Your task to perform on an android device: toggle show notifications on the lock screen Image 0: 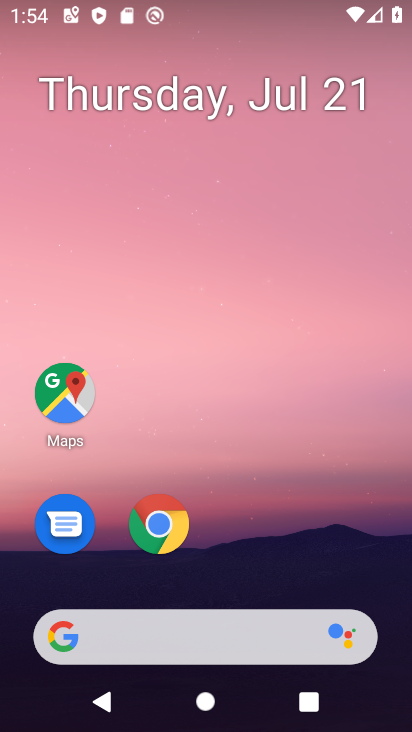
Step 0: drag from (277, 539) to (280, 27)
Your task to perform on an android device: toggle show notifications on the lock screen Image 1: 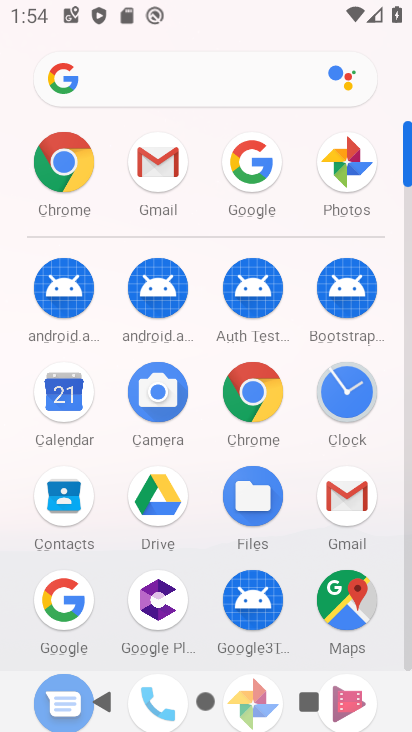
Step 1: drag from (201, 430) to (230, 99)
Your task to perform on an android device: toggle show notifications on the lock screen Image 2: 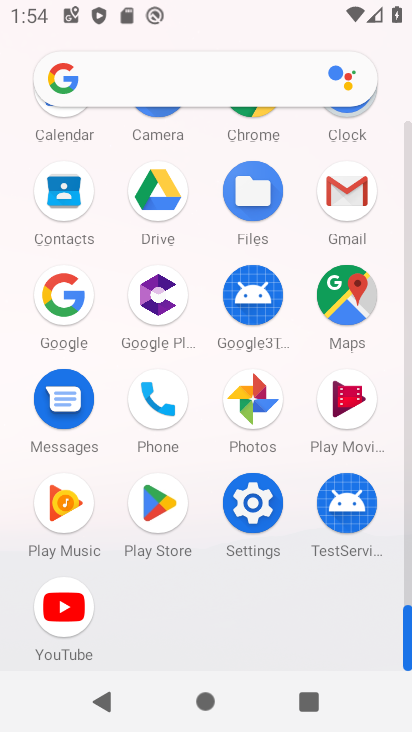
Step 2: click (251, 493)
Your task to perform on an android device: toggle show notifications on the lock screen Image 3: 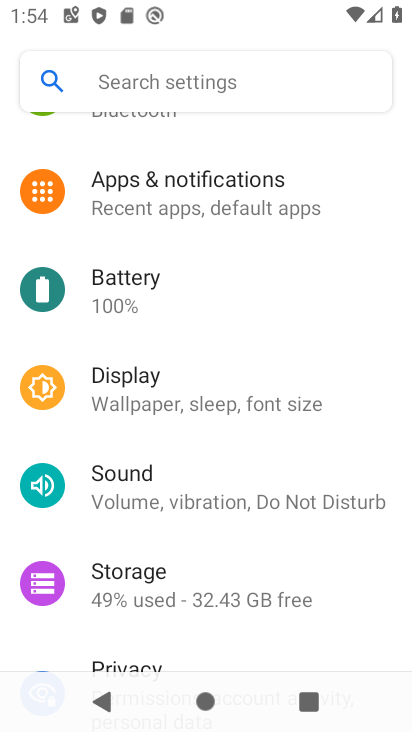
Step 3: click (249, 199)
Your task to perform on an android device: toggle show notifications on the lock screen Image 4: 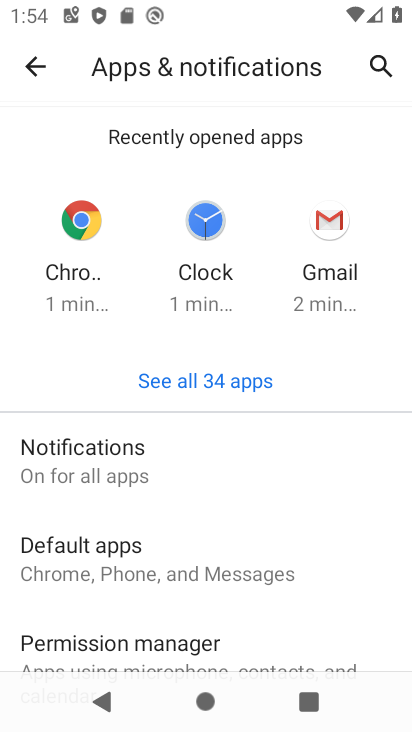
Step 4: click (101, 440)
Your task to perform on an android device: toggle show notifications on the lock screen Image 5: 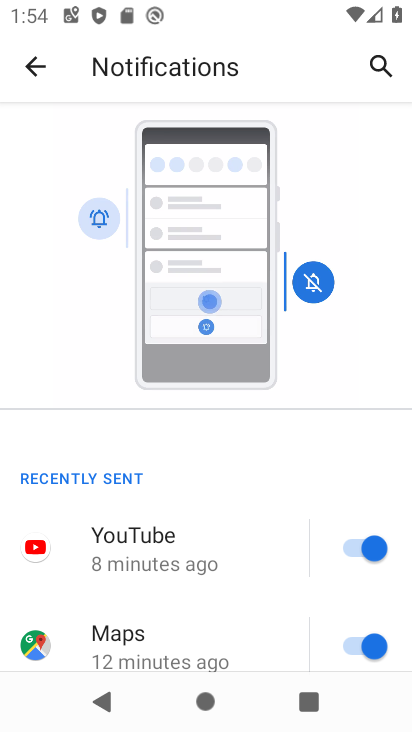
Step 5: drag from (205, 606) to (234, 46)
Your task to perform on an android device: toggle show notifications on the lock screen Image 6: 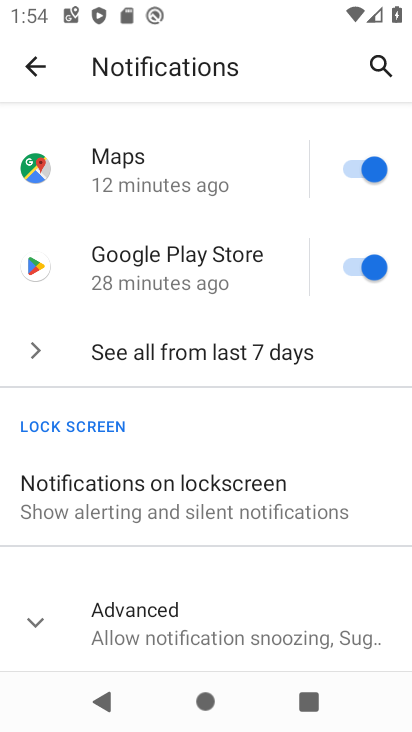
Step 6: click (194, 493)
Your task to perform on an android device: toggle show notifications on the lock screen Image 7: 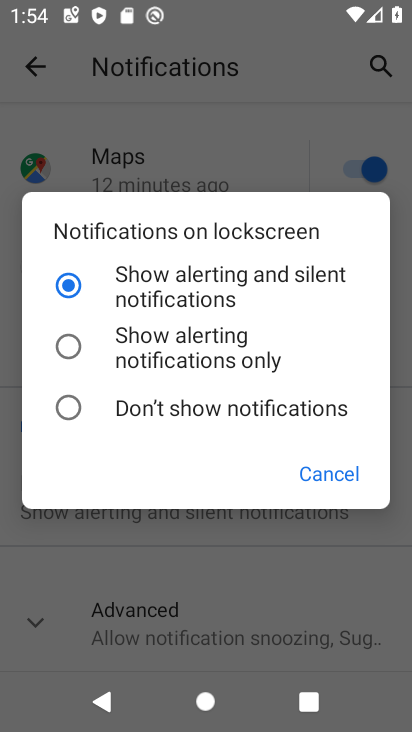
Step 7: click (73, 411)
Your task to perform on an android device: toggle show notifications on the lock screen Image 8: 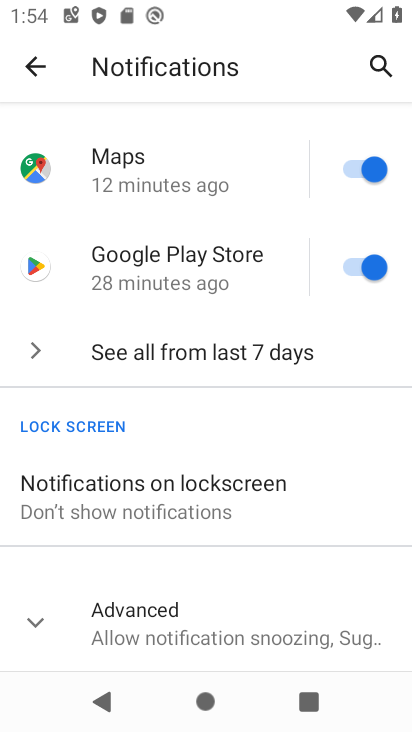
Step 8: task complete